Your task to perform on an android device: Is it going to rain today? Image 0: 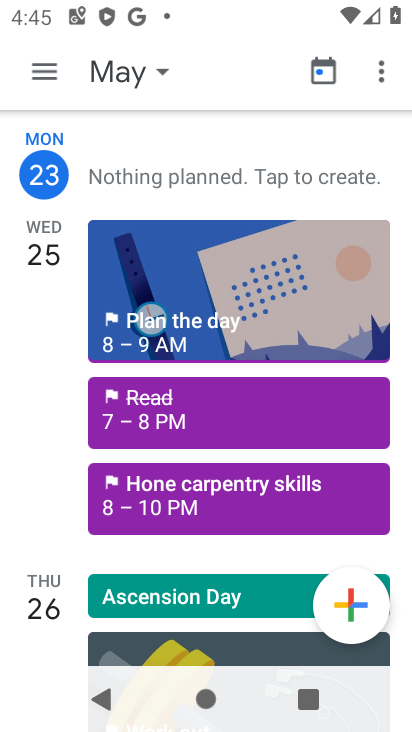
Step 0: press home button
Your task to perform on an android device: Is it going to rain today? Image 1: 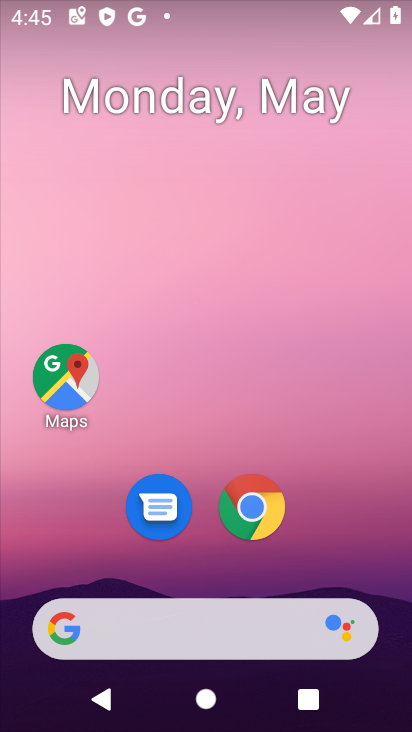
Step 1: drag from (347, 527) to (304, 103)
Your task to perform on an android device: Is it going to rain today? Image 2: 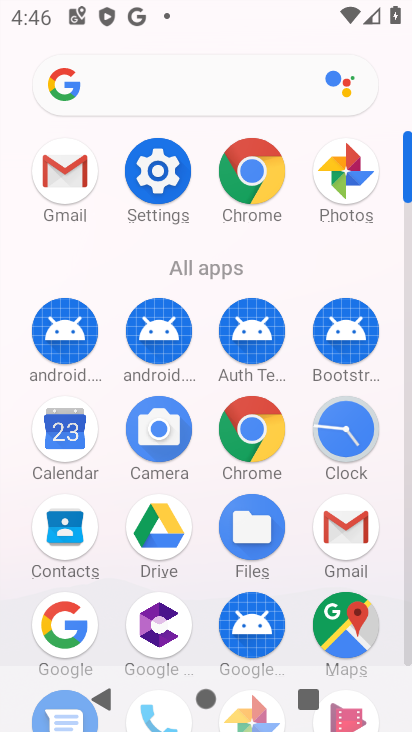
Step 2: click (63, 92)
Your task to perform on an android device: Is it going to rain today? Image 3: 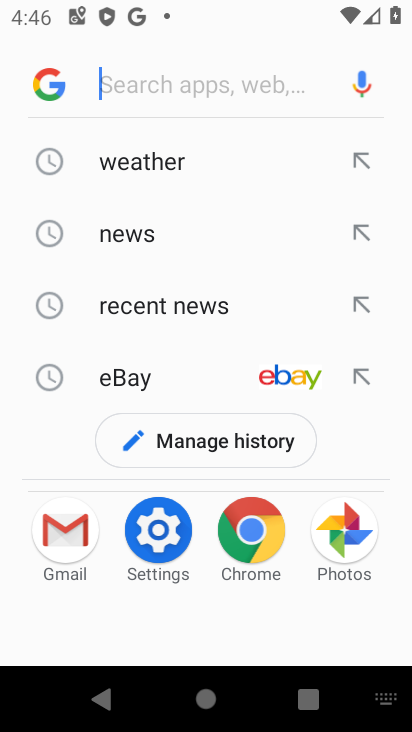
Step 3: click (61, 86)
Your task to perform on an android device: Is it going to rain today? Image 4: 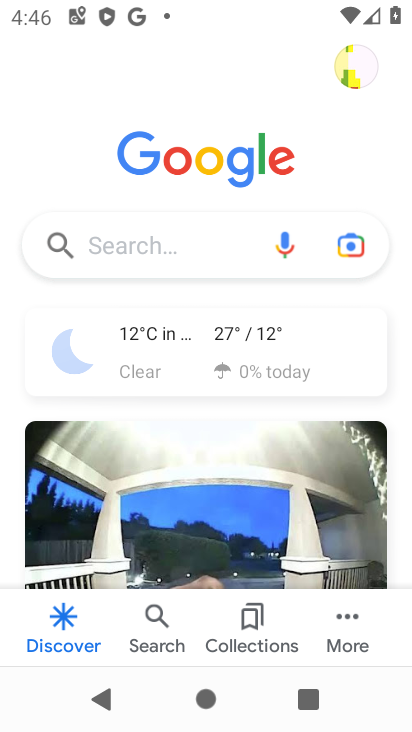
Step 4: click (205, 336)
Your task to perform on an android device: Is it going to rain today? Image 5: 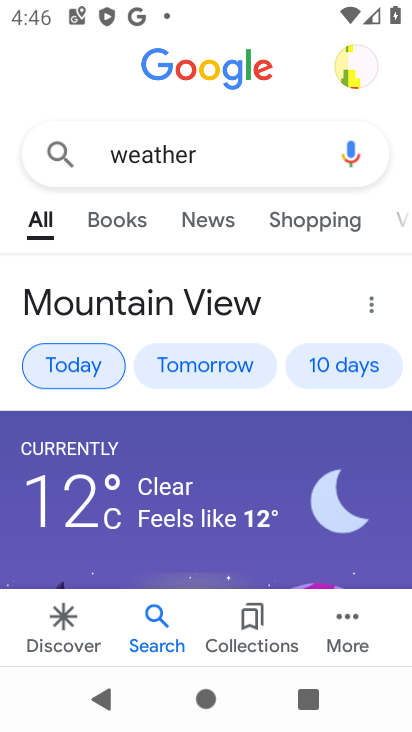
Step 5: task complete